Your task to perform on an android device: turn off notifications in google photos Image 0: 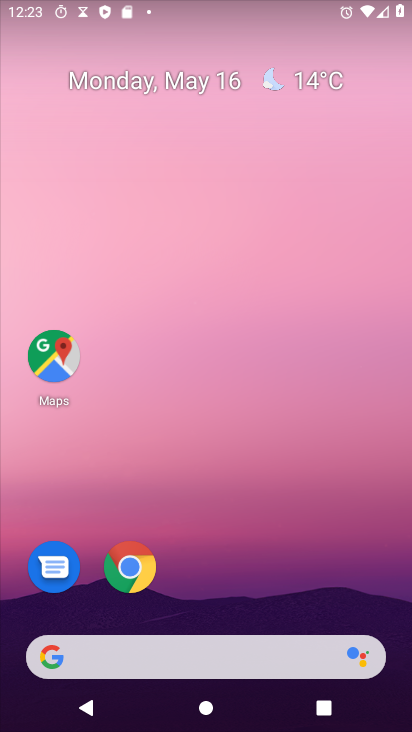
Step 0: drag from (248, 589) to (309, 53)
Your task to perform on an android device: turn off notifications in google photos Image 1: 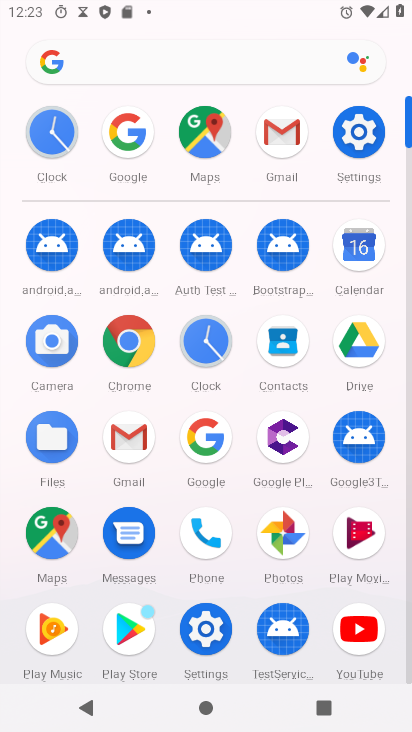
Step 1: click (279, 535)
Your task to perform on an android device: turn off notifications in google photos Image 2: 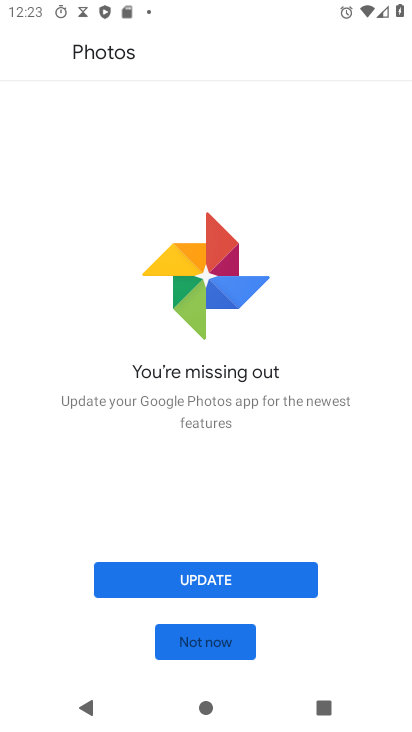
Step 2: click (232, 579)
Your task to perform on an android device: turn off notifications in google photos Image 3: 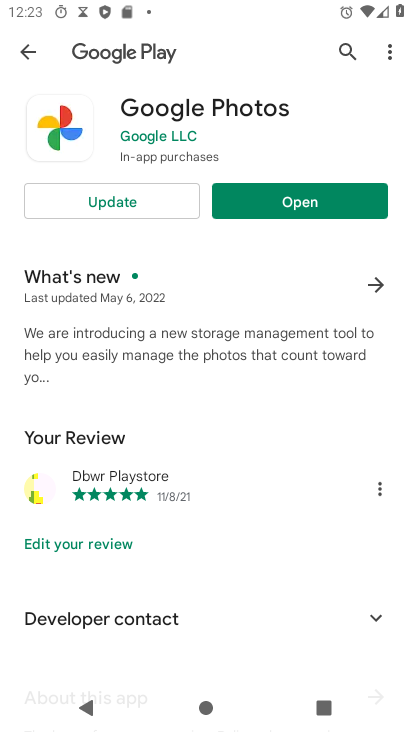
Step 3: click (105, 205)
Your task to perform on an android device: turn off notifications in google photos Image 4: 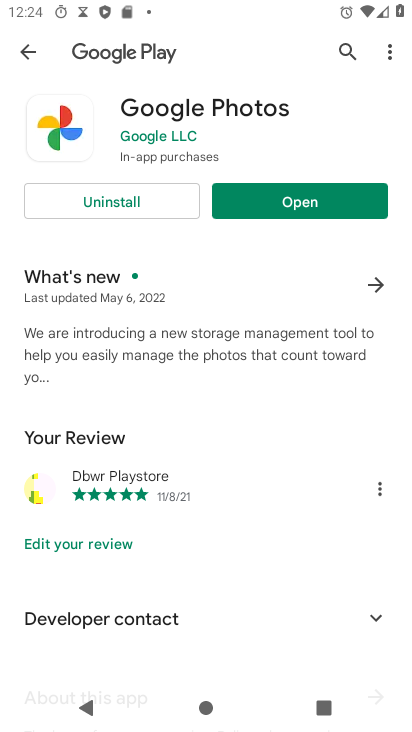
Step 4: click (307, 207)
Your task to perform on an android device: turn off notifications in google photos Image 5: 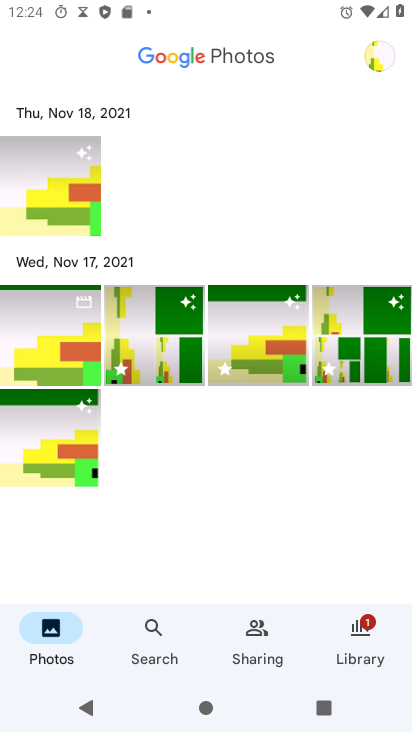
Step 5: click (374, 62)
Your task to perform on an android device: turn off notifications in google photos Image 6: 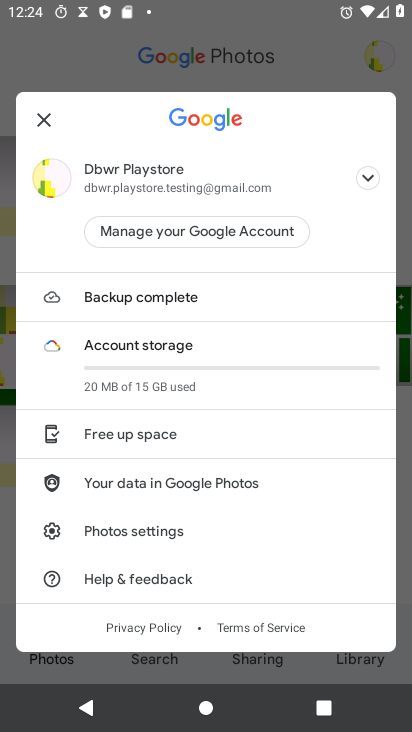
Step 6: click (170, 530)
Your task to perform on an android device: turn off notifications in google photos Image 7: 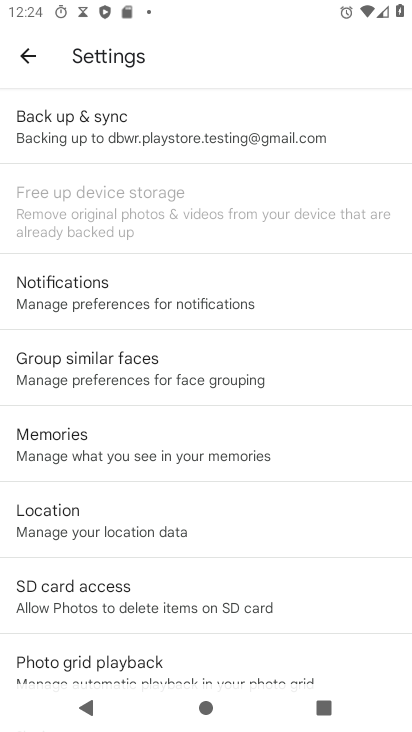
Step 7: click (86, 309)
Your task to perform on an android device: turn off notifications in google photos Image 8: 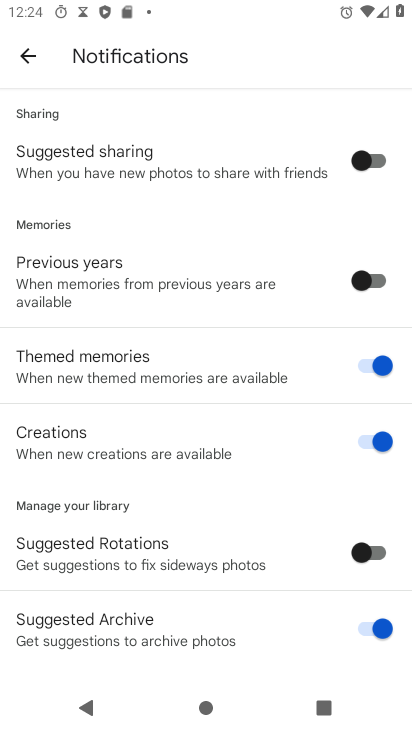
Step 8: drag from (127, 566) to (155, 169)
Your task to perform on an android device: turn off notifications in google photos Image 9: 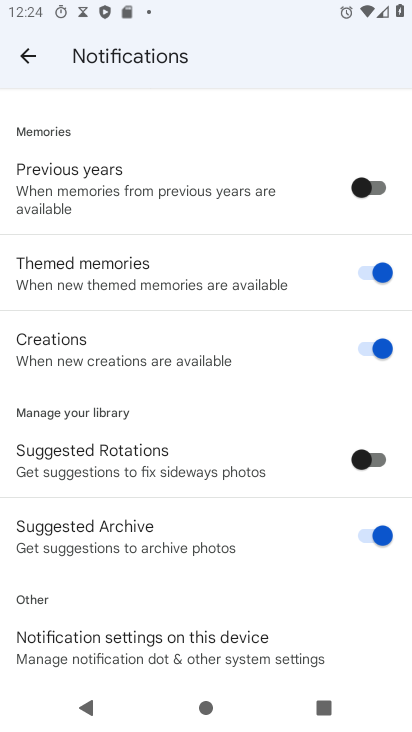
Step 9: click (141, 652)
Your task to perform on an android device: turn off notifications in google photos Image 10: 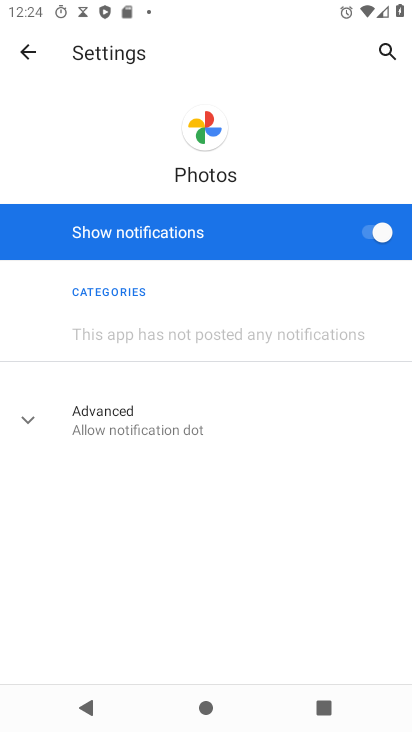
Step 10: click (375, 236)
Your task to perform on an android device: turn off notifications in google photos Image 11: 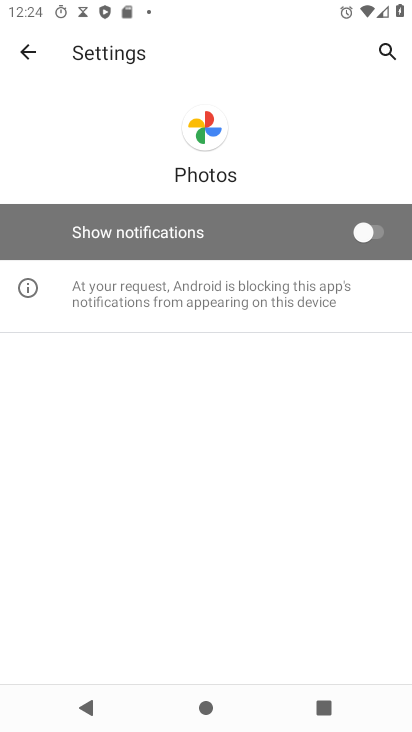
Step 11: task complete